Your task to perform on an android device: Search for Mexican restaurants on Maps Image 0: 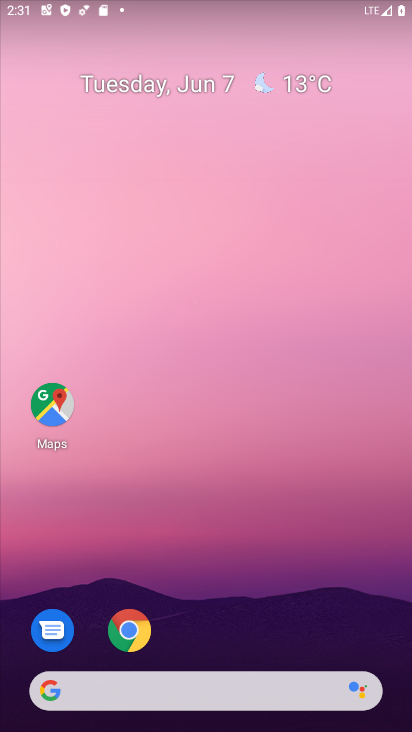
Step 0: click (47, 412)
Your task to perform on an android device: Search for Mexican restaurants on Maps Image 1: 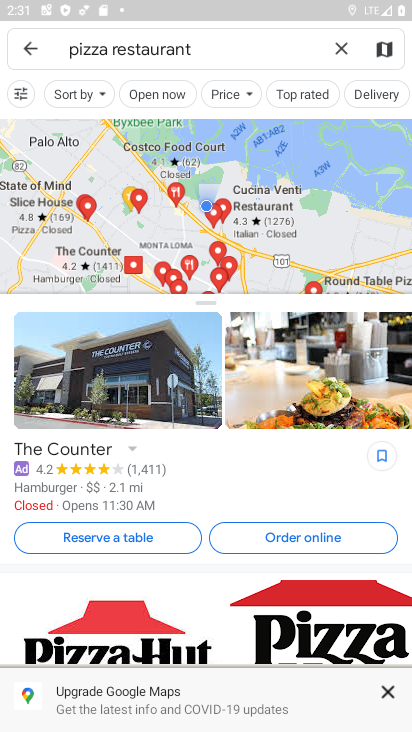
Step 1: click (335, 34)
Your task to perform on an android device: Search for Mexican restaurants on Maps Image 2: 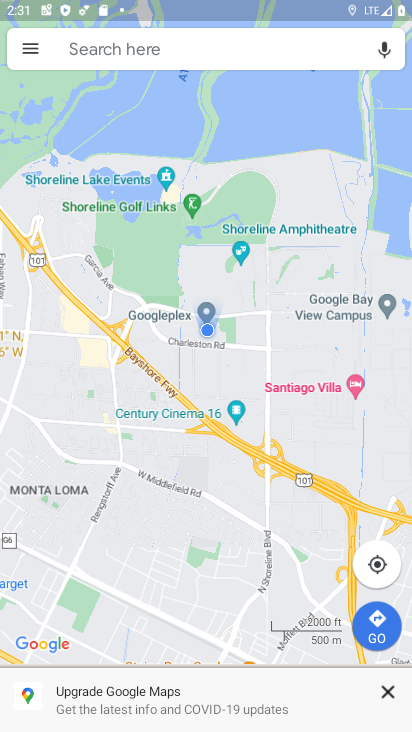
Step 2: click (273, 51)
Your task to perform on an android device: Search for Mexican restaurants on Maps Image 3: 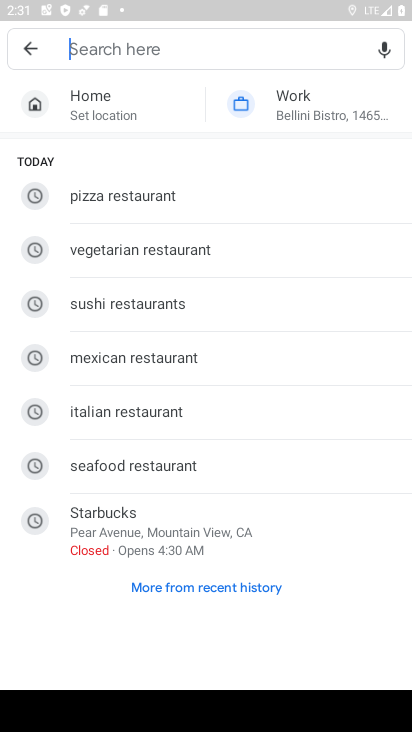
Step 3: click (163, 365)
Your task to perform on an android device: Search for Mexican restaurants on Maps Image 4: 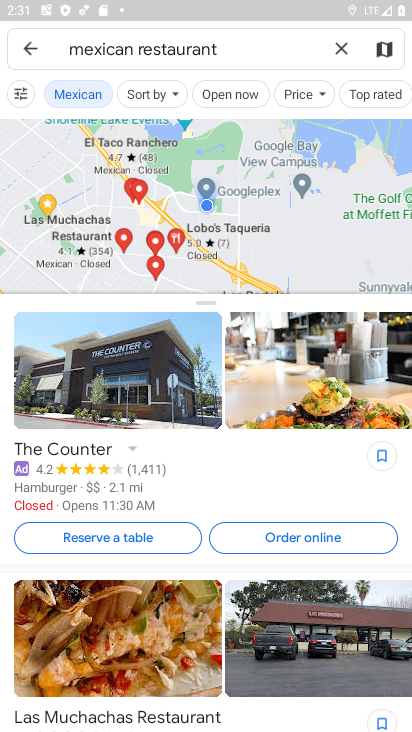
Step 4: task complete